Your task to perform on an android device: turn on improve location accuracy Image 0: 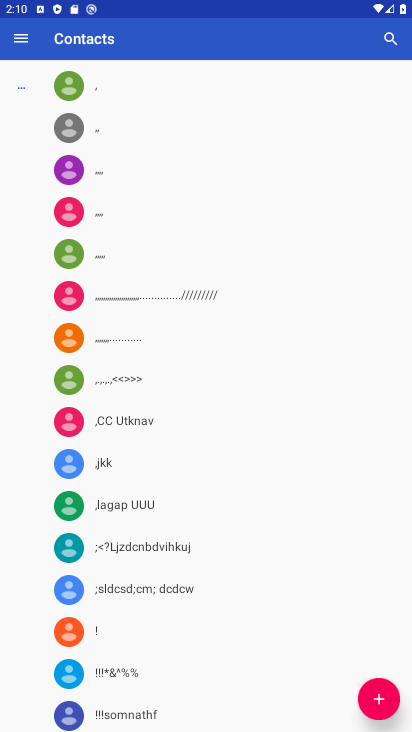
Step 0: press home button
Your task to perform on an android device: turn on improve location accuracy Image 1: 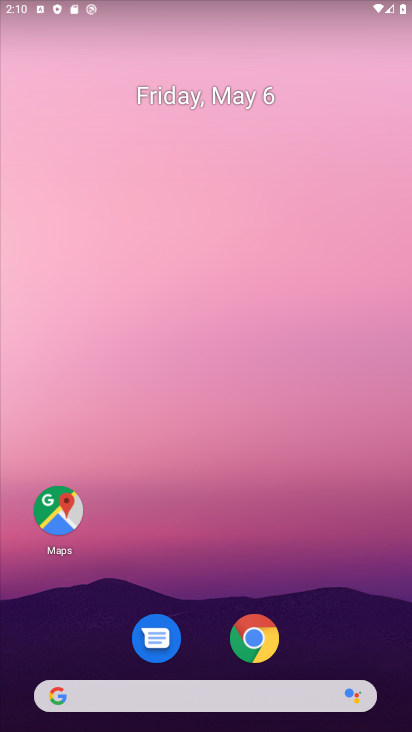
Step 1: drag from (197, 723) to (276, 227)
Your task to perform on an android device: turn on improve location accuracy Image 2: 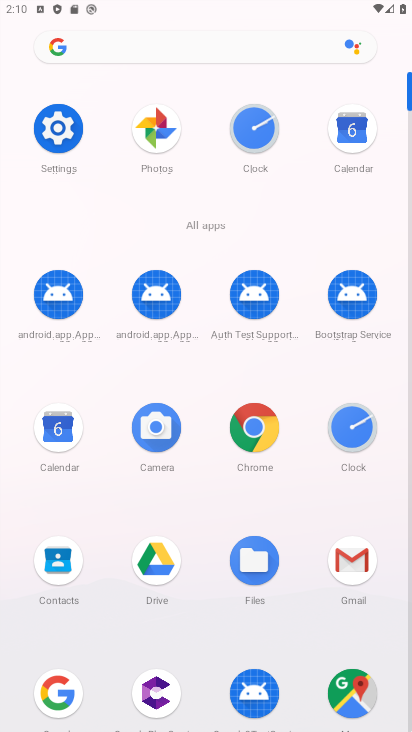
Step 2: click (55, 135)
Your task to perform on an android device: turn on improve location accuracy Image 3: 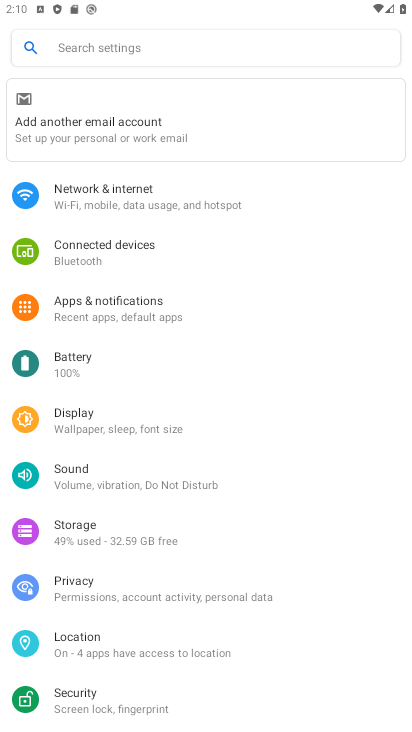
Step 3: click (113, 643)
Your task to perform on an android device: turn on improve location accuracy Image 4: 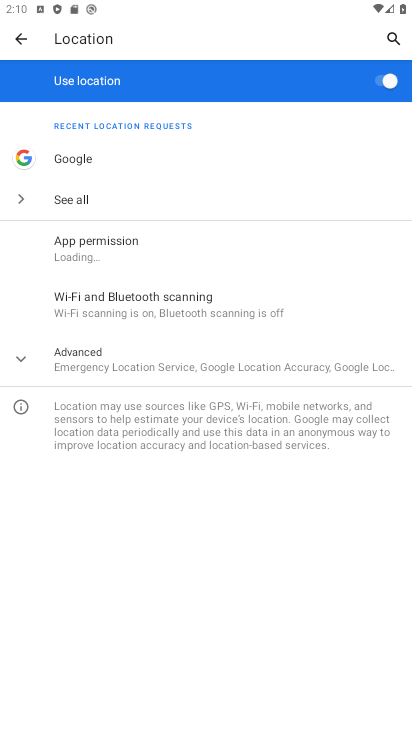
Step 4: click (90, 356)
Your task to perform on an android device: turn on improve location accuracy Image 5: 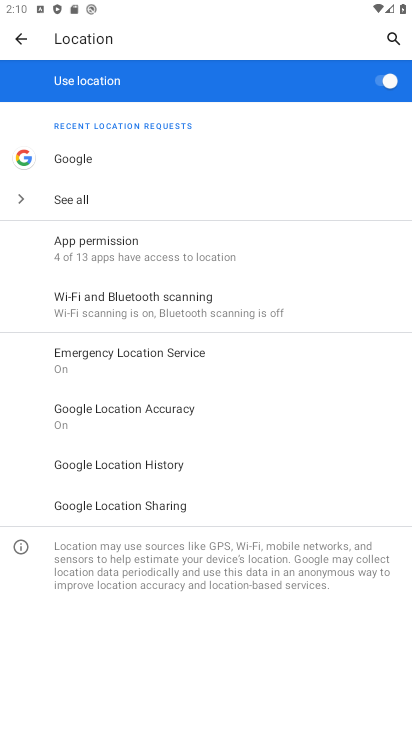
Step 5: click (181, 416)
Your task to perform on an android device: turn on improve location accuracy Image 6: 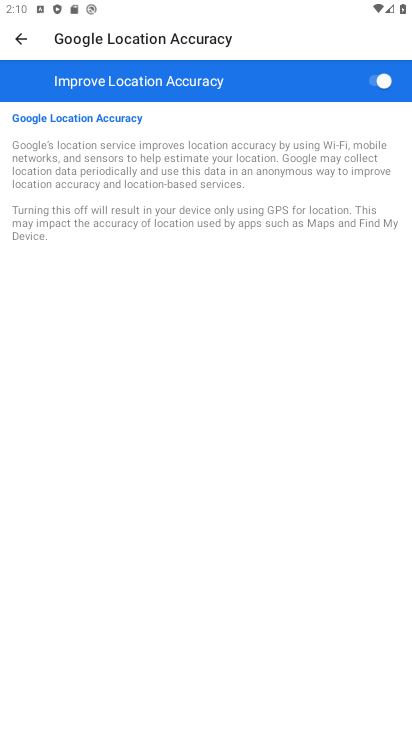
Step 6: click (372, 84)
Your task to perform on an android device: turn on improve location accuracy Image 7: 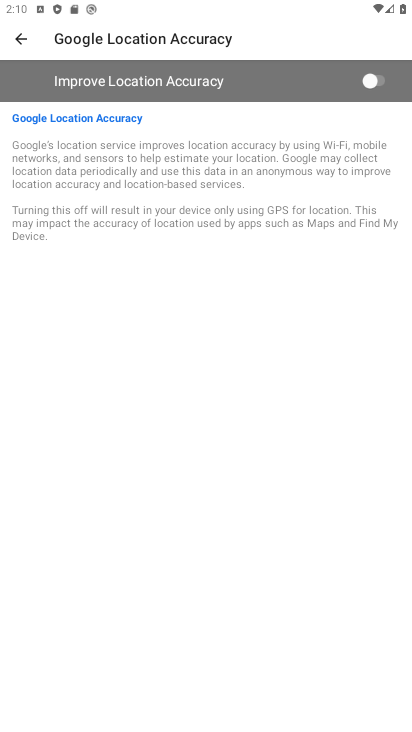
Step 7: click (382, 86)
Your task to perform on an android device: turn on improve location accuracy Image 8: 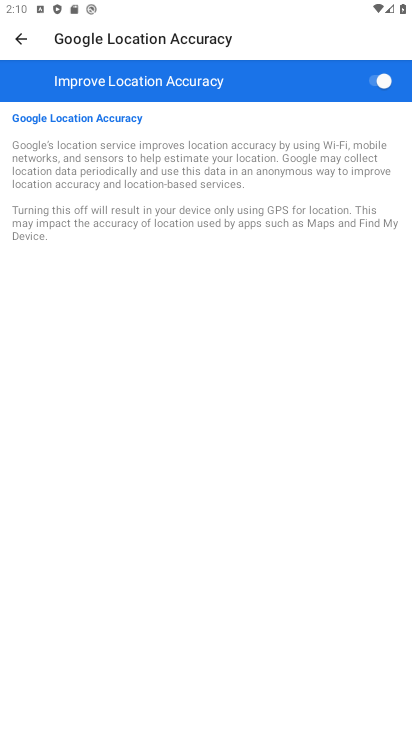
Step 8: task complete